Your task to perform on an android device: Open ESPN.com Image 0: 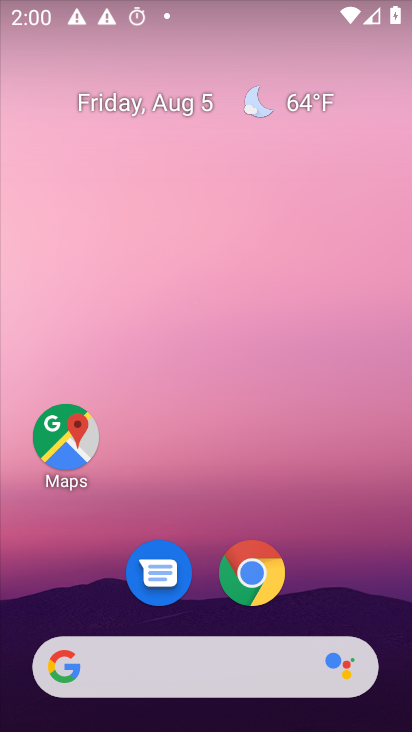
Step 0: press home button
Your task to perform on an android device: Open ESPN.com Image 1: 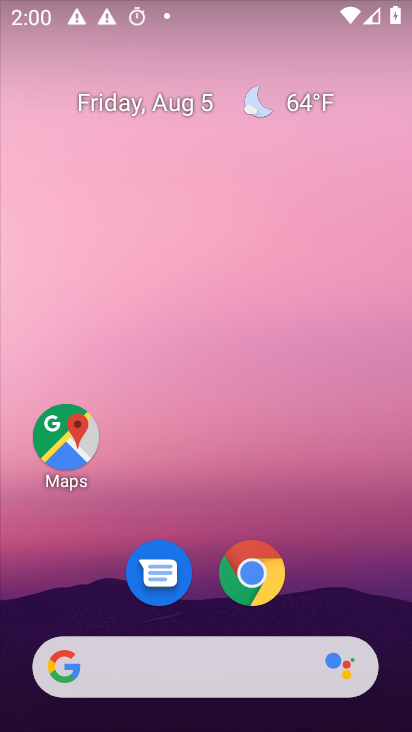
Step 1: drag from (336, 600) to (354, 234)
Your task to perform on an android device: Open ESPN.com Image 2: 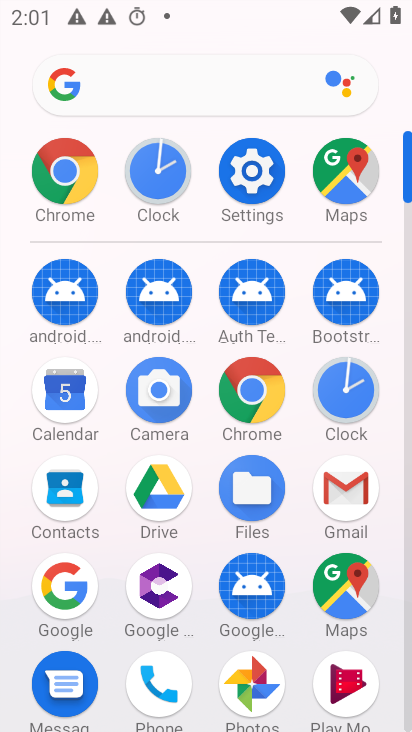
Step 2: click (259, 400)
Your task to perform on an android device: Open ESPN.com Image 3: 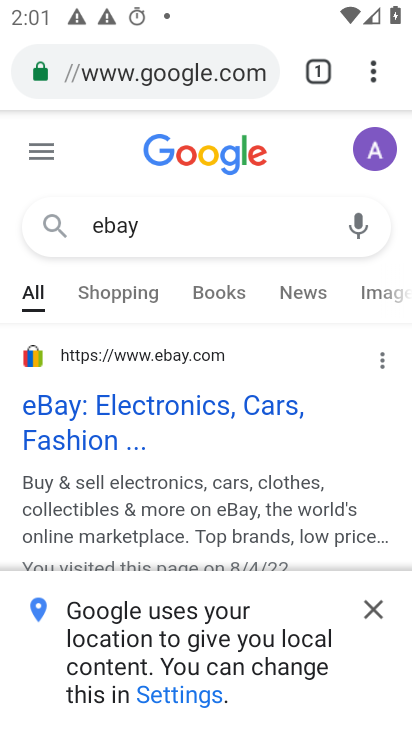
Step 3: click (210, 61)
Your task to perform on an android device: Open ESPN.com Image 4: 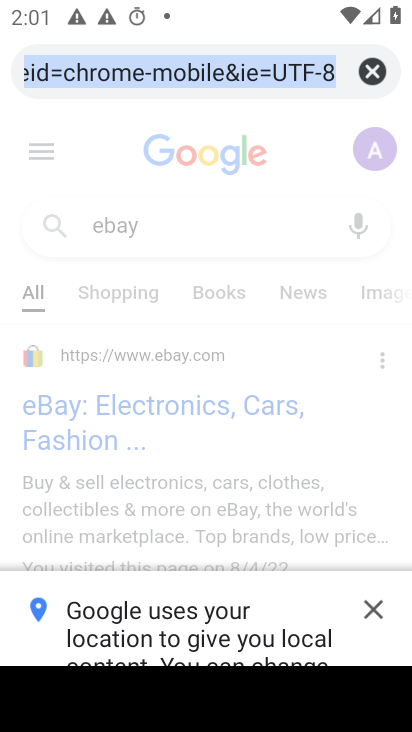
Step 4: type "espn"
Your task to perform on an android device: Open ESPN.com Image 5: 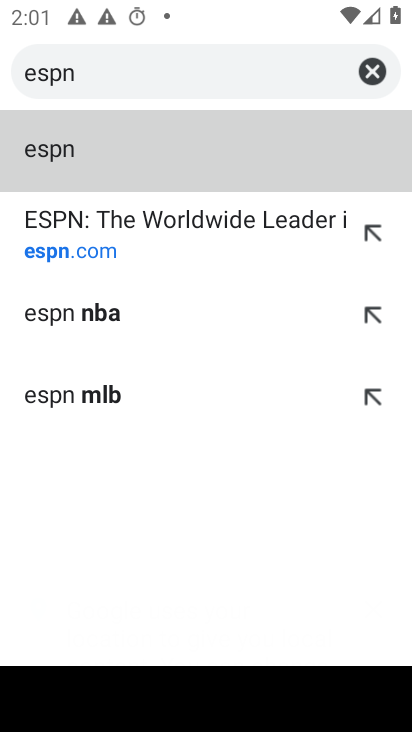
Step 5: click (116, 220)
Your task to perform on an android device: Open ESPN.com Image 6: 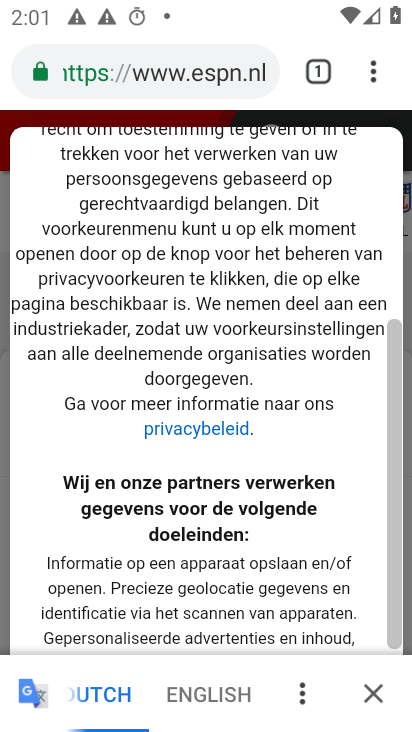
Step 6: task complete